Your task to perform on an android device: open a new tab in the chrome app Image 0: 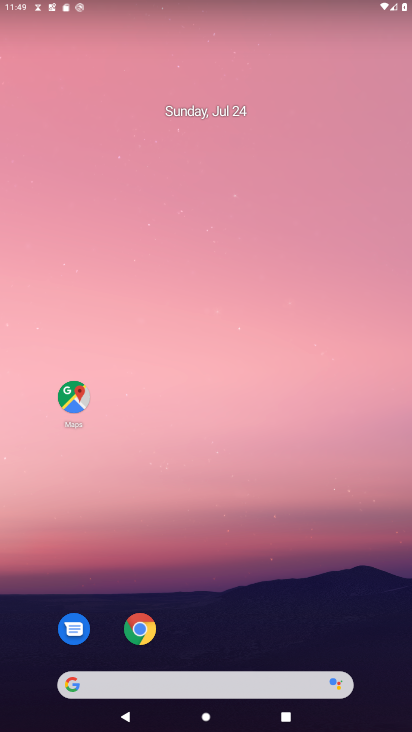
Step 0: click (146, 629)
Your task to perform on an android device: open a new tab in the chrome app Image 1: 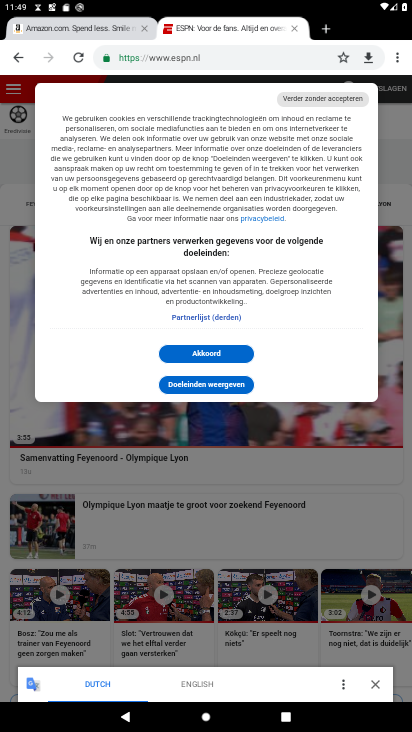
Step 1: click (328, 26)
Your task to perform on an android device: open a new tab in the chrome app Image 2: 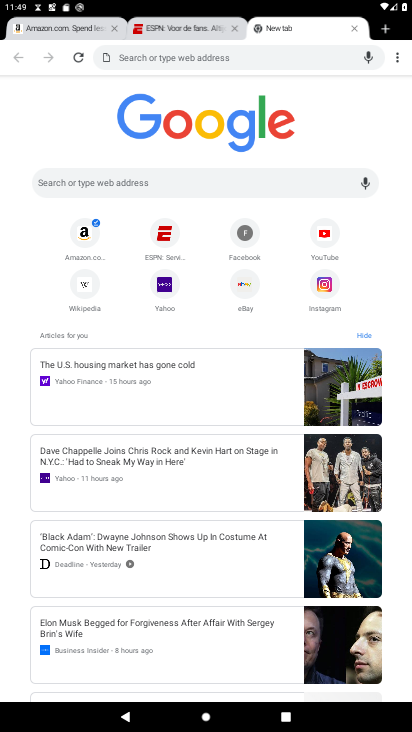
Step 2: task complete